Your task to perform on an android device: Search for Italian restaurants on Maps Image 0: 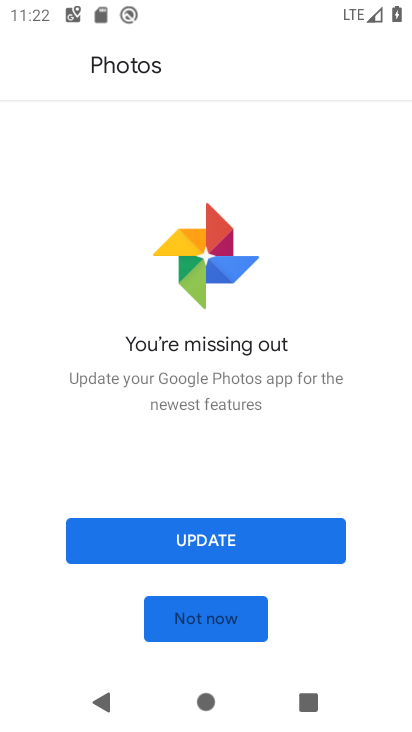
Step 0: press home button
Your task to perform on an android device: Search for Italian restaurants on Maps Image 1: 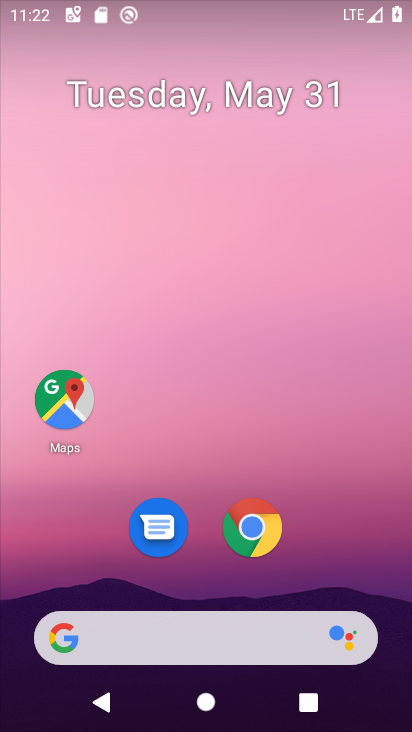
Step 1: click (59, 411)
Your task to perform on an android device: Search for Italian restaurants on Maps Image 2: 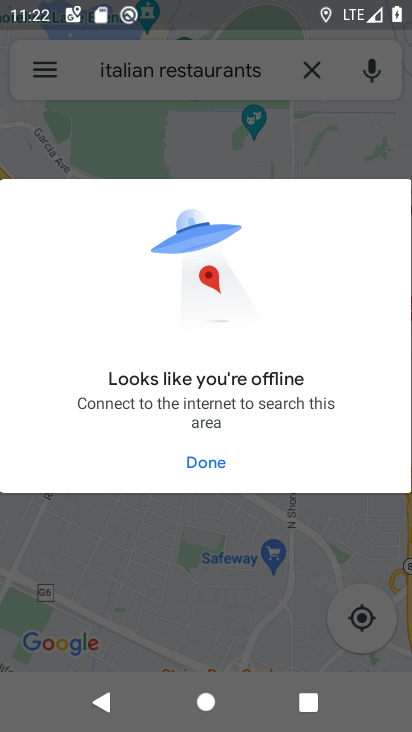
Step 2: click (224, 457)
Your task to perform on an android device: Search for Italian restaurants on Maps Image 3: 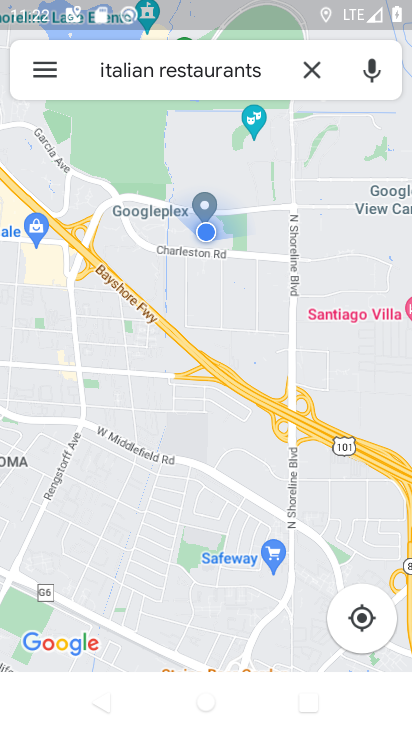
Step 3: click (247, 71)
Your task to perform on an android device: Search for Italian restaurants on Maps Image 4: 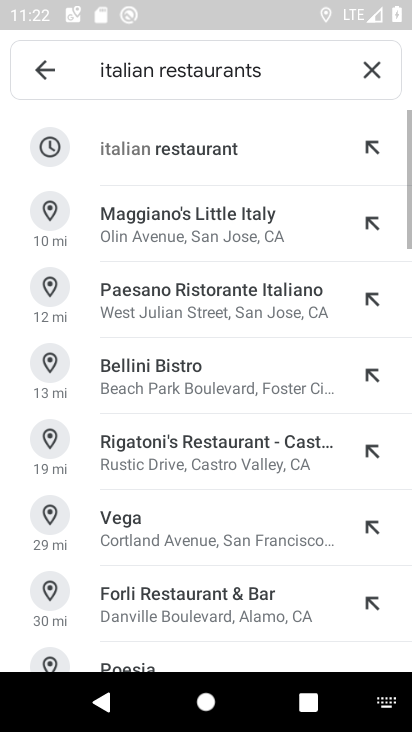
Step 4: click (201, 146)
Your task to perform on an android device: Search for Italian restaurants on Maps Image 5: 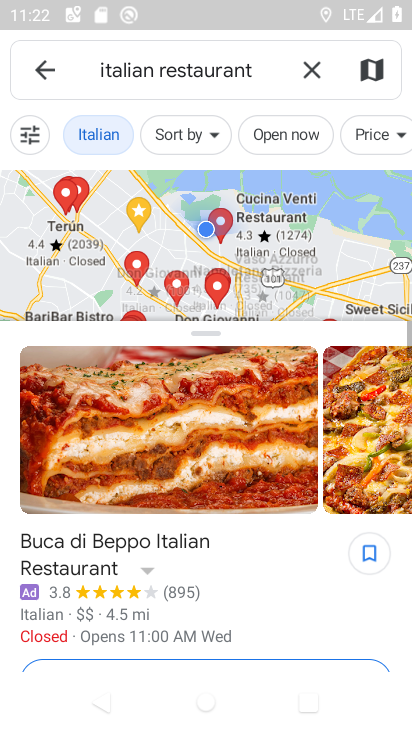
Step 5: task complete